Your task to perform on an android device: Open Android settings Image 0: 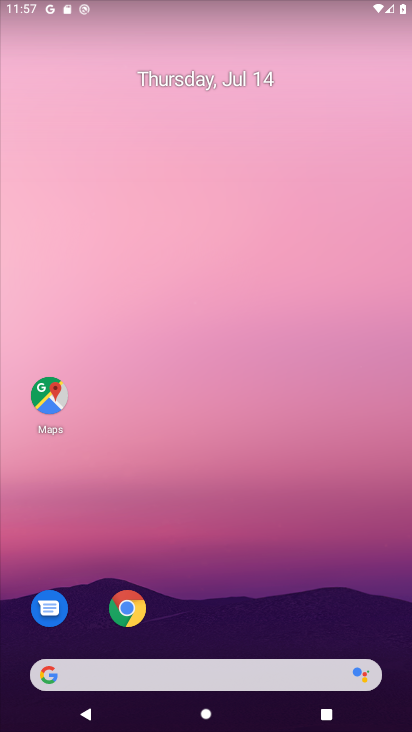
Step 0: click (178, 171)
Your task to perform on an android device: Open Android settings Image 1: 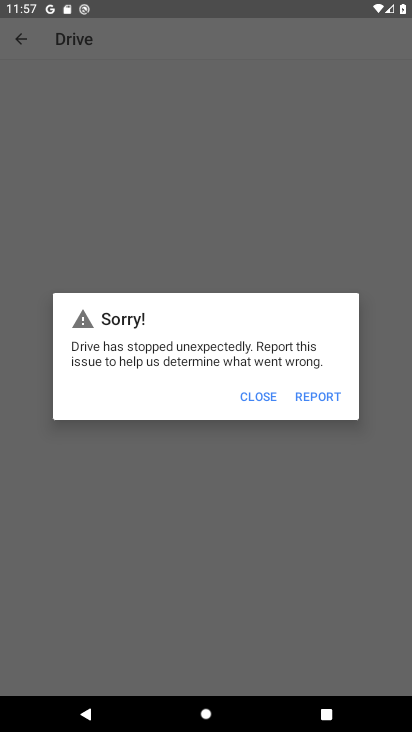
Step 1: press home button
Your task to perform on an android device: Open Android settings Image 2: 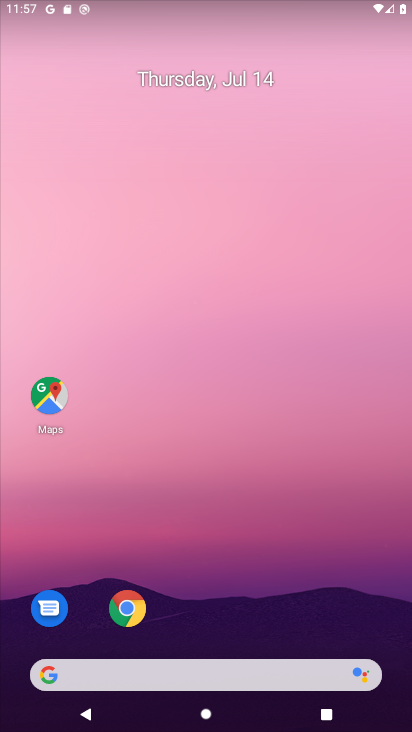
Step 2: drag from (248, 533) to (213, 93)
Your task to perform on an android device: Open Android settings Image 3: 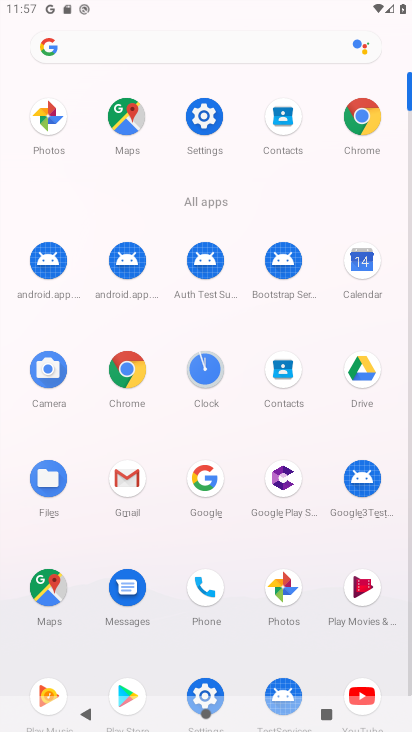
Step 3: click (202, 118)
Your task to perform on an android device: Open Android settings Image 4: 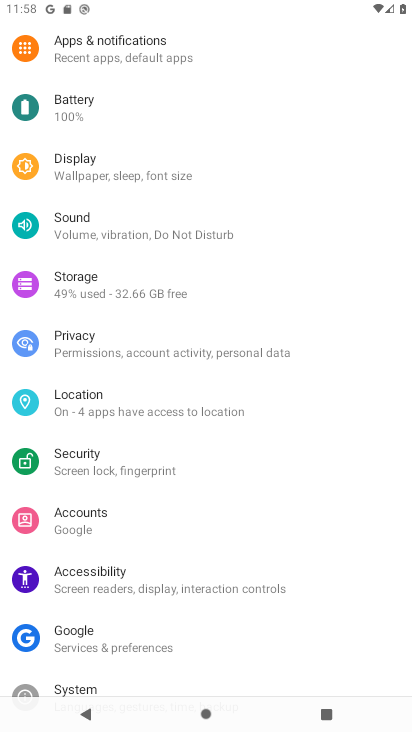
Step 4: task complete